Your task to perform on an android device: Search for pizza restaurants on Maps Image 0: 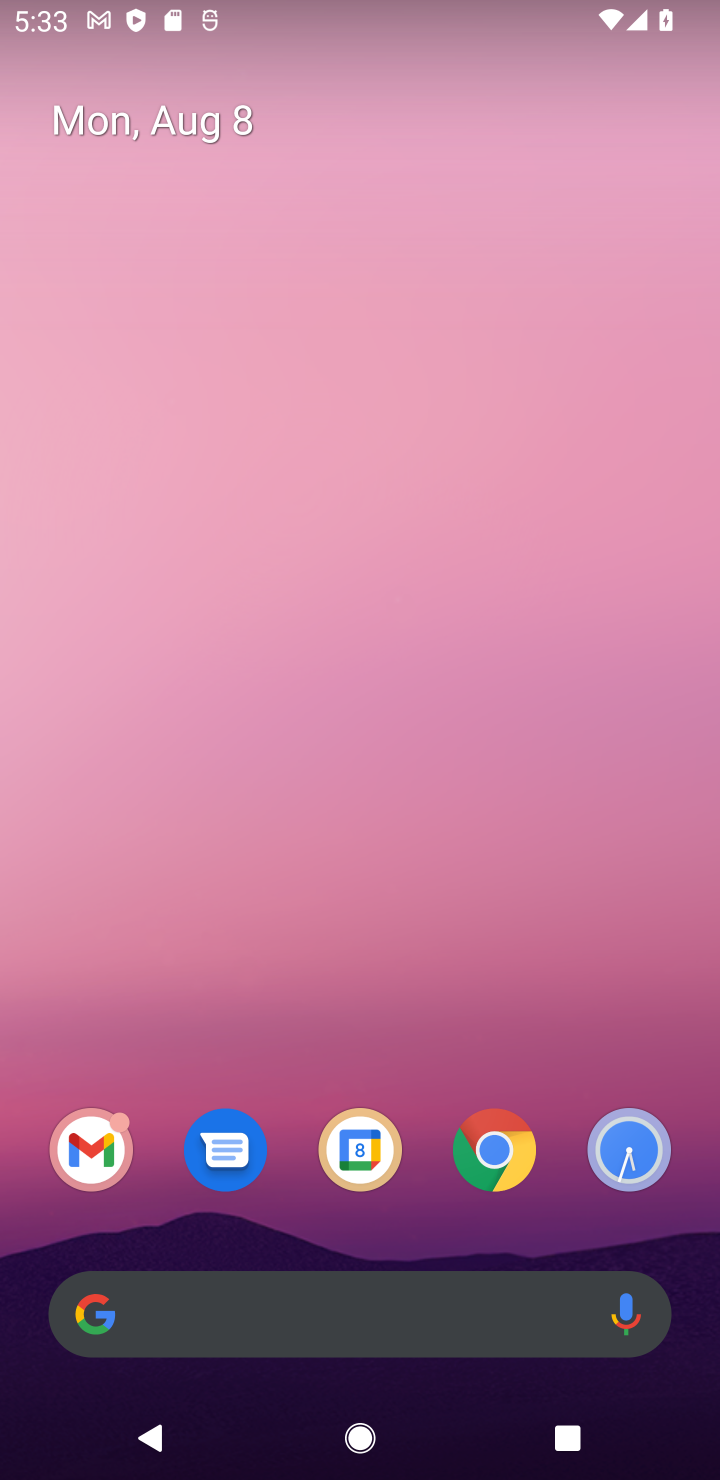
Step 0: drag from (434, 1231) to (376, 306)
Your task to perform on an android device: Search for pizza restaurants on Maps Image 1: 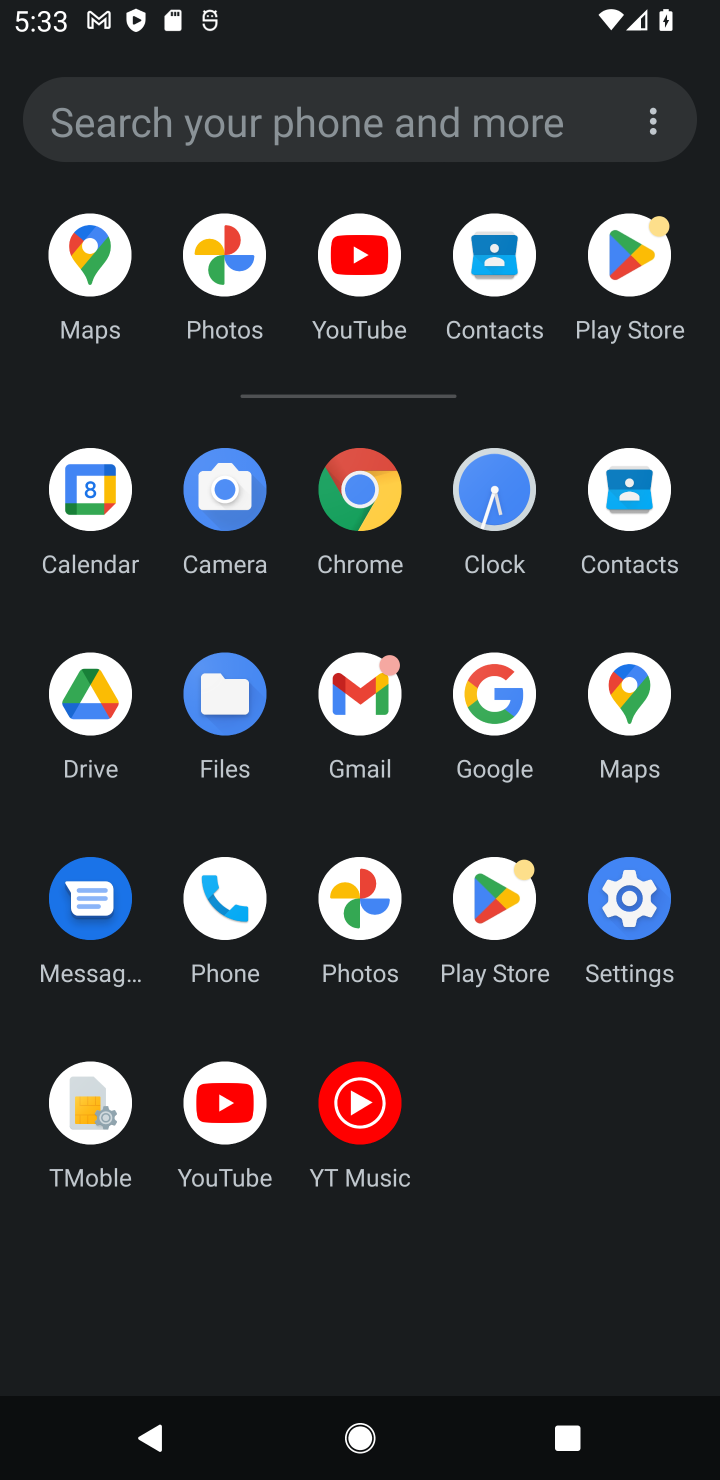
Step 1: click (626, 281)
Your task to perform on an android device: Search for pizza restaurants on Maps Image 2: 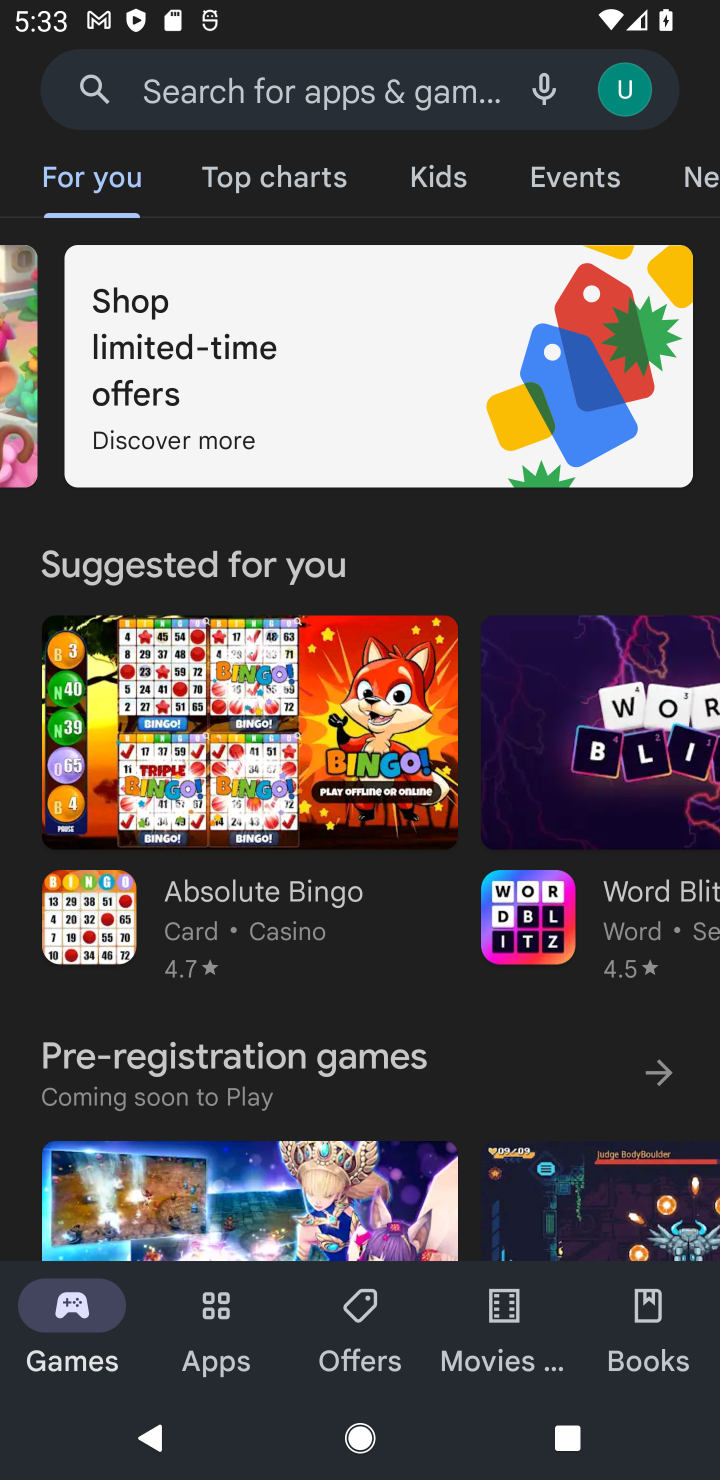
Step 2: press home button
Your task to perform on an android device: Search for pizza restaurants on Maps Image 3: 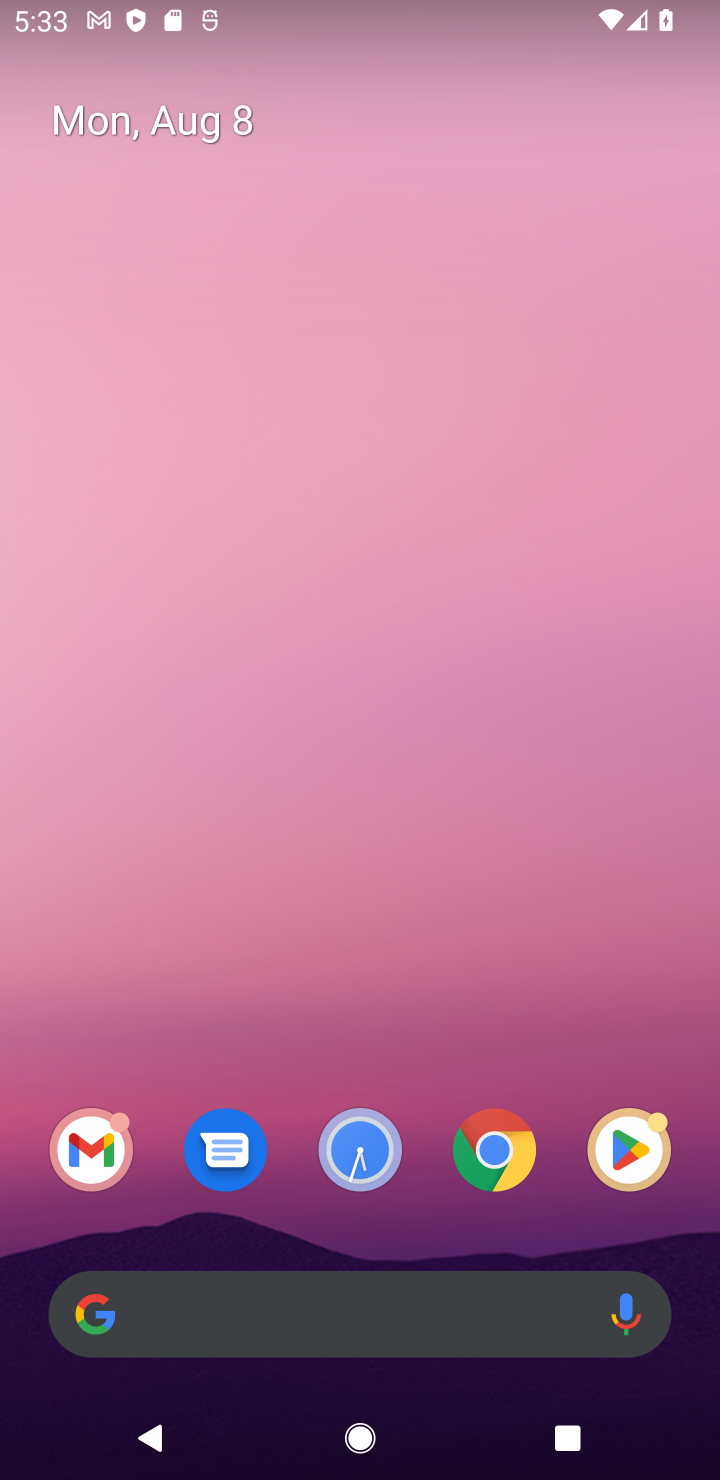
Step 3: drag from (411, 1207) to (327, 77)
Your task to perform on an android device: Search for pizza restaurants on Maps Image 4: 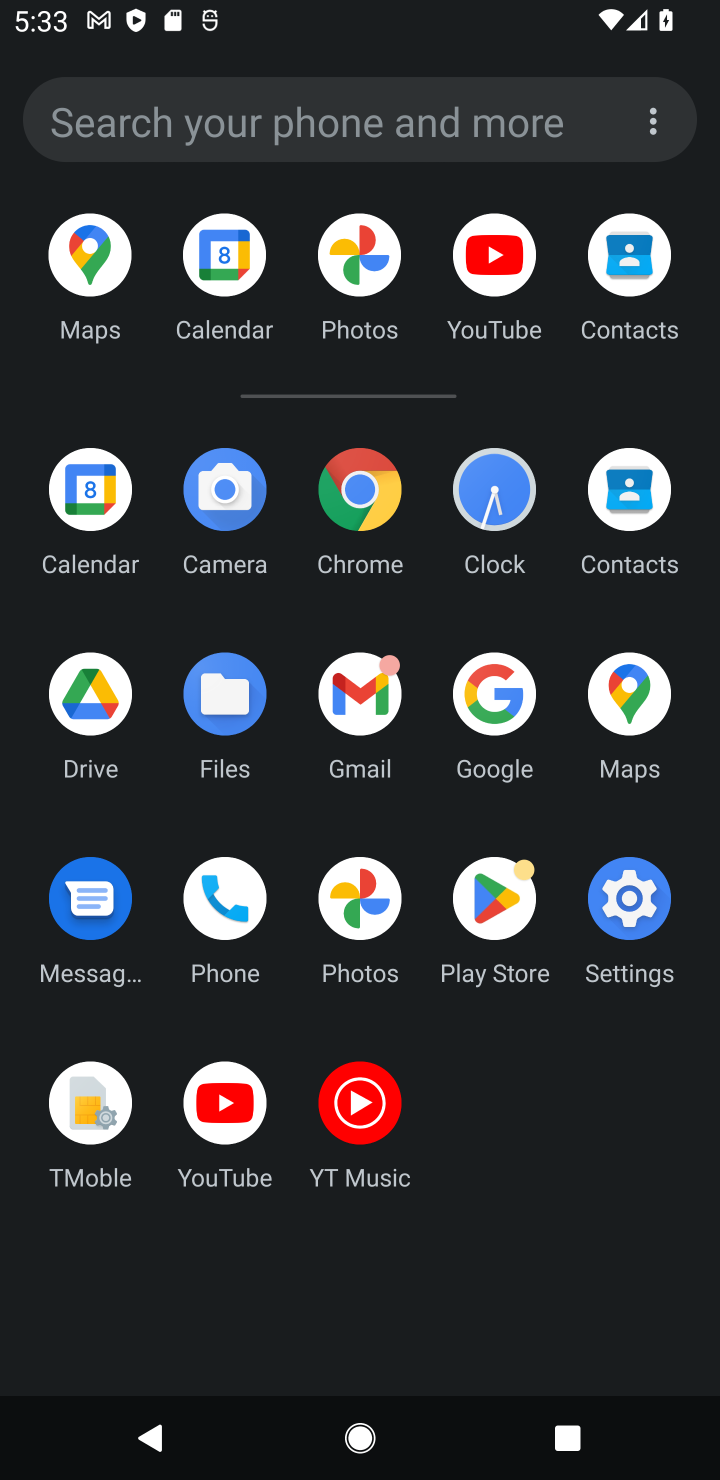
Step 4: click (83, 270)
Your task to perform on an android device: Search for pizza restaurants on Maps Image 5: 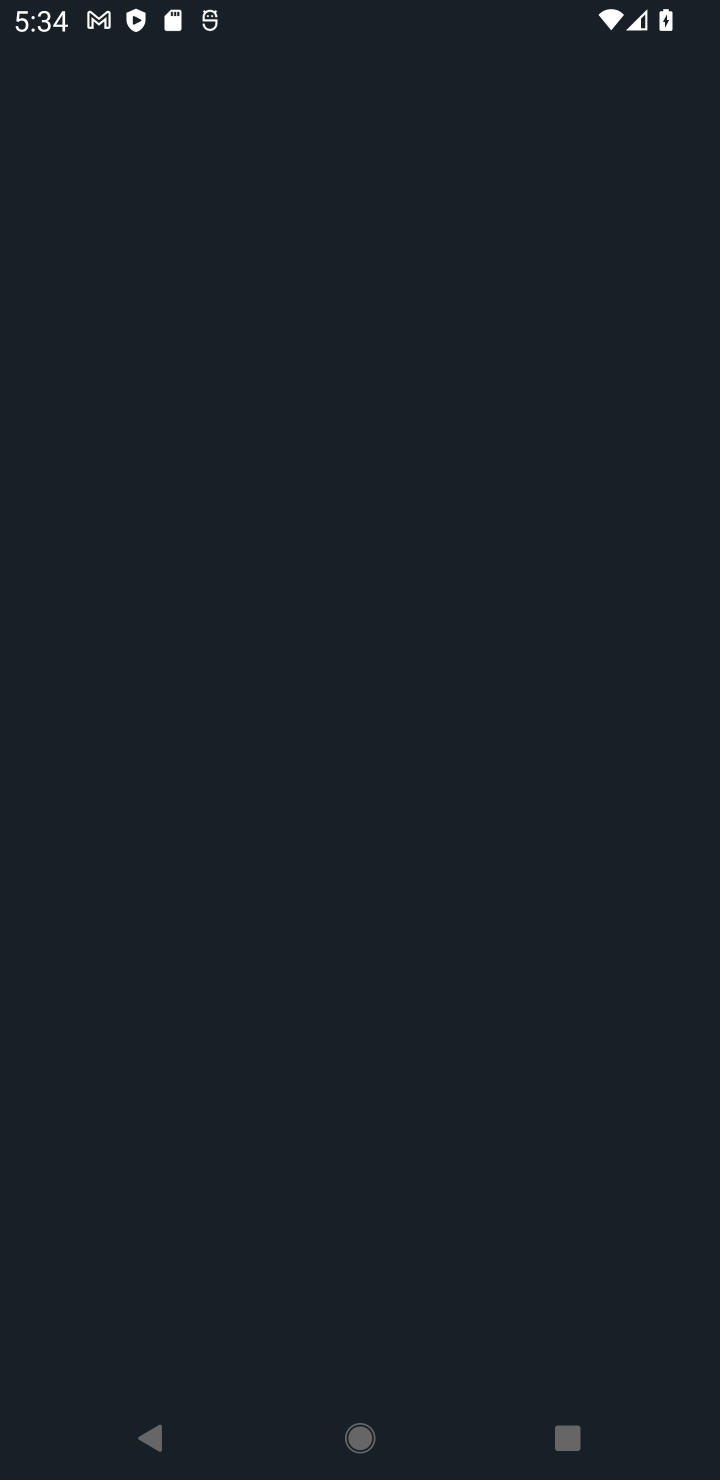
Step 5: task complete